Your task to perform on an android device: Go to network settings Image 0: 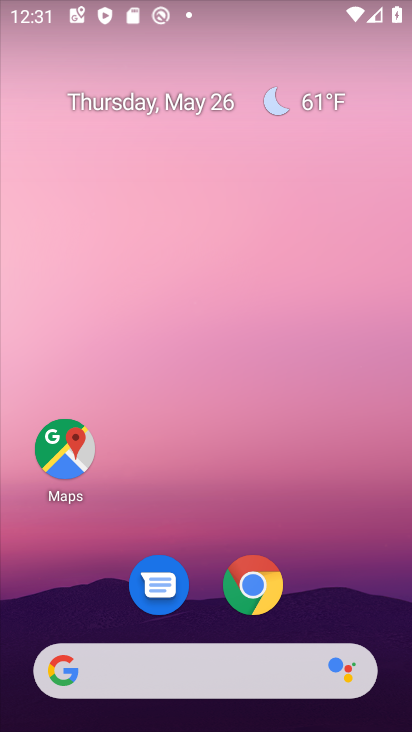
Step 0: drag from (329, 535) to (348, 58)
Your task to perform on an android device: Go to network settings Image 1: 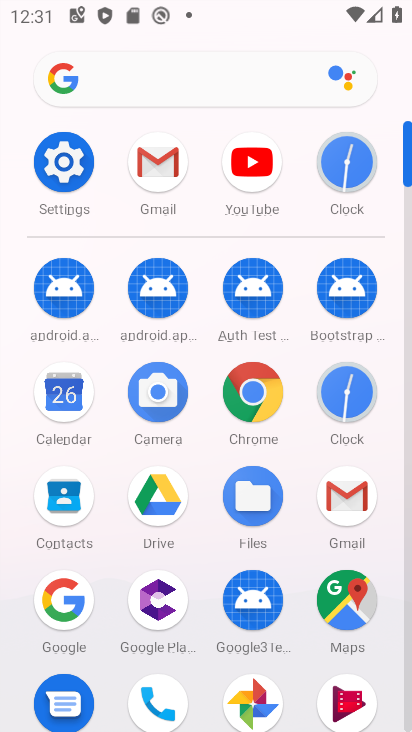
Step 1: click (56, 163)
Your task to perform on an android device: Go to network settings Image 2: 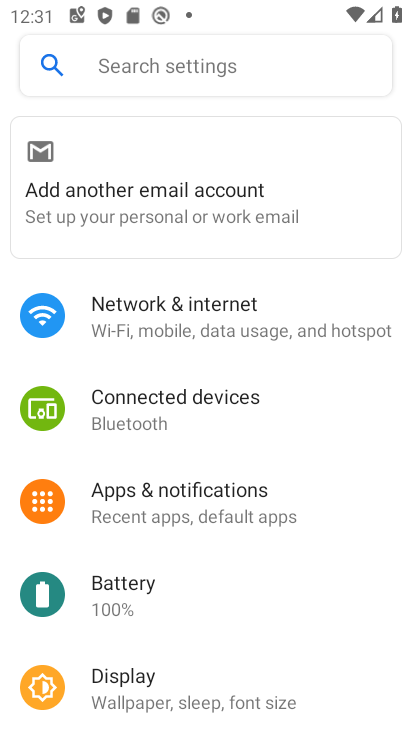
Step 2: click (234, 320)
Your task to perform on an android device: Go to network settings Image 3: 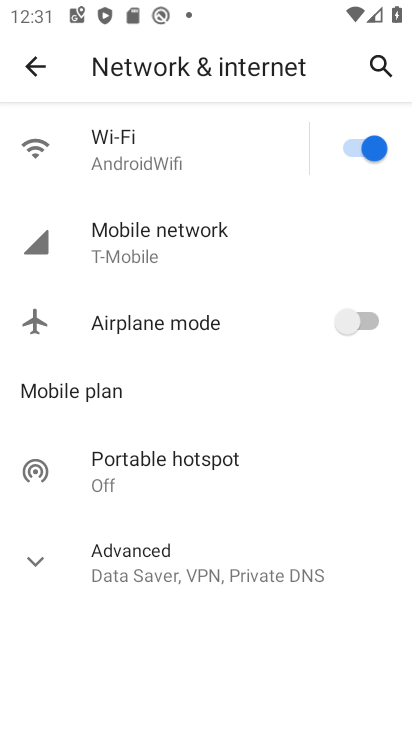
Step 3: task complete